Your task to perform on an android device: See recent photos Image 0: 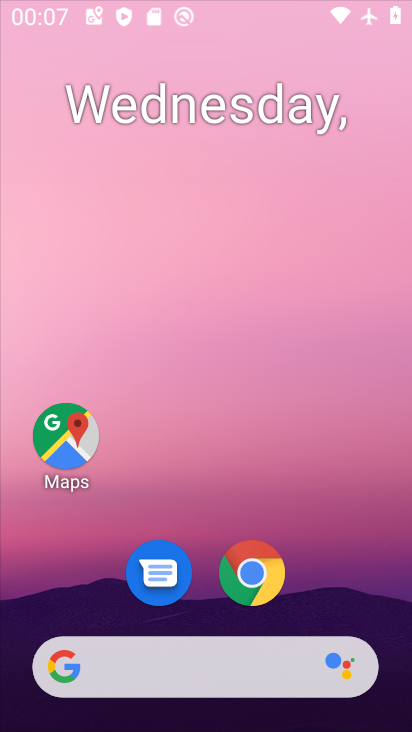
Step 0: click (366, 221)
Your task to perform on an android device: See recent photos Image 1: 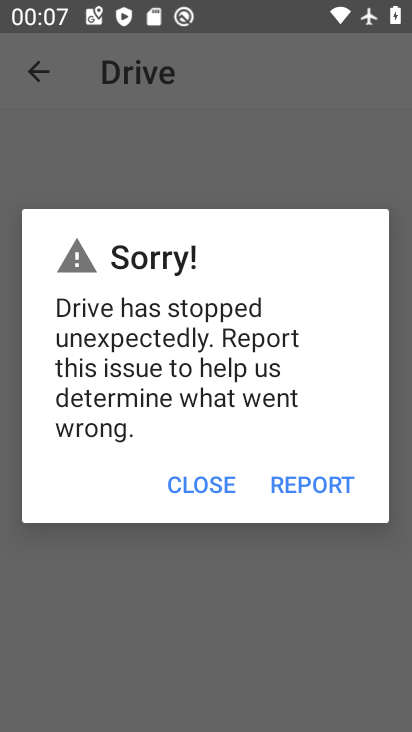
Step 1: drag from (325, 572) to (326, 259)
Your task to perform on an android device: See recent photos Image 2: 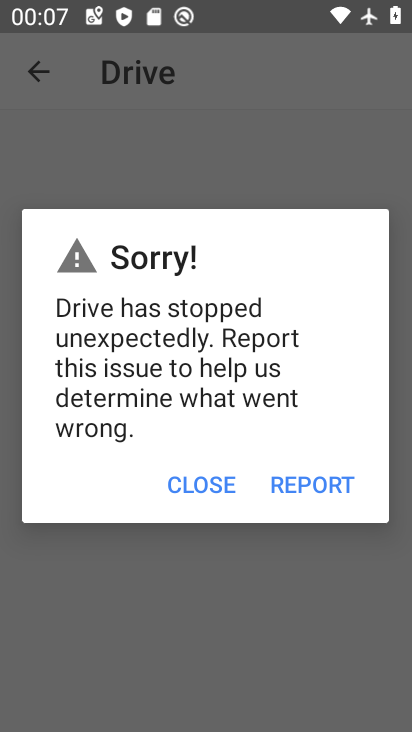
Step 2: click (298, 498)
Your task to perform on an android device: See recent photos Image 3: 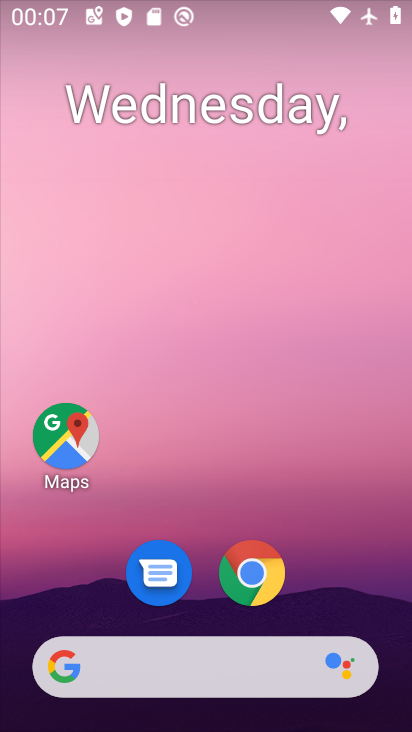
Step 3: drag from (217, 520) to (259, 203)
Your task to perform on an android device: See recent photos Image 4: 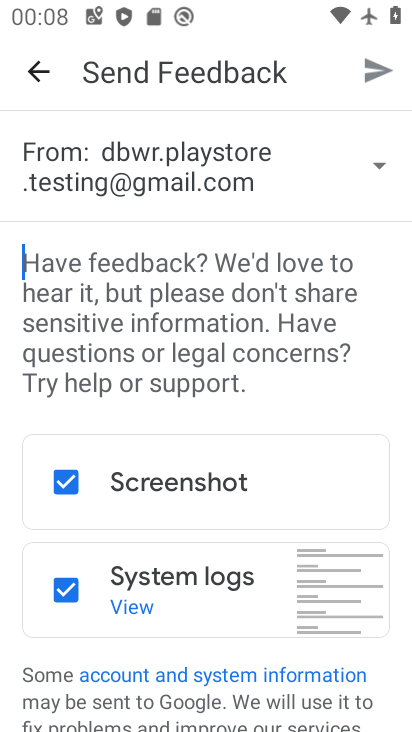
Step 4: click (48, 63)
Your task to perform on an android device: See recent photos Image 5: 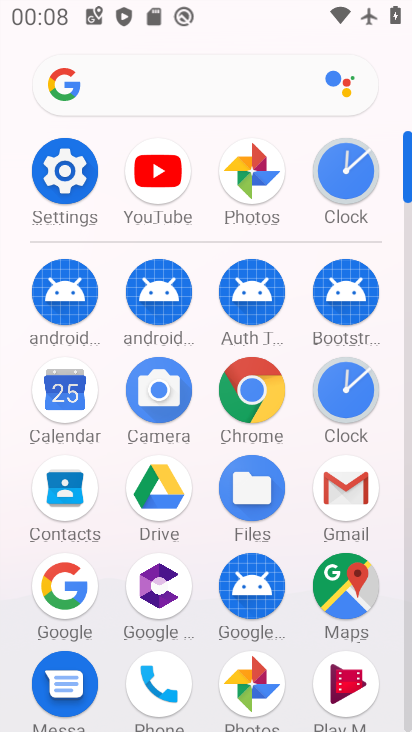
Step 5: click (256, 680)
Your task to perform on an android device: See recent photos Image 6: 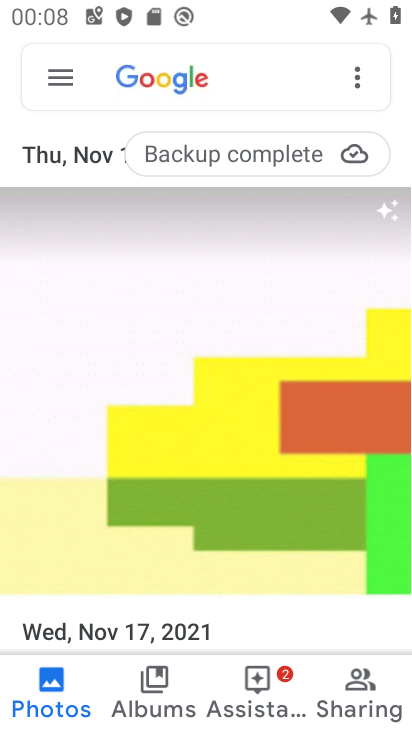
Step 6: task complete